Your task to perform on an android device: create a new album in the google photos Image 0: 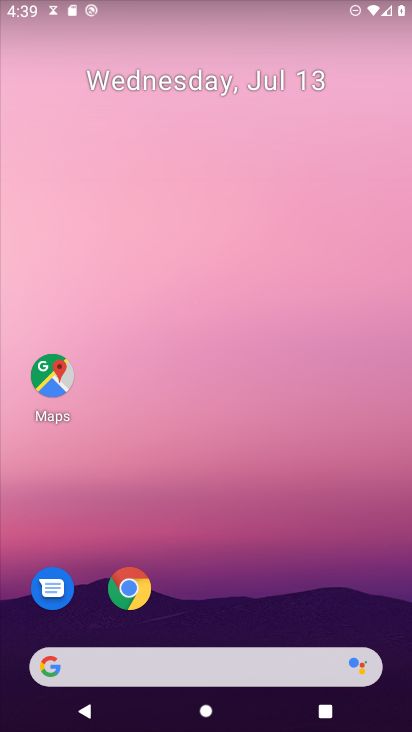
Step 0: drag from (313, 661) to (252, 182)
Your task to perform on an android device: create a new album in the google photos Image 1: 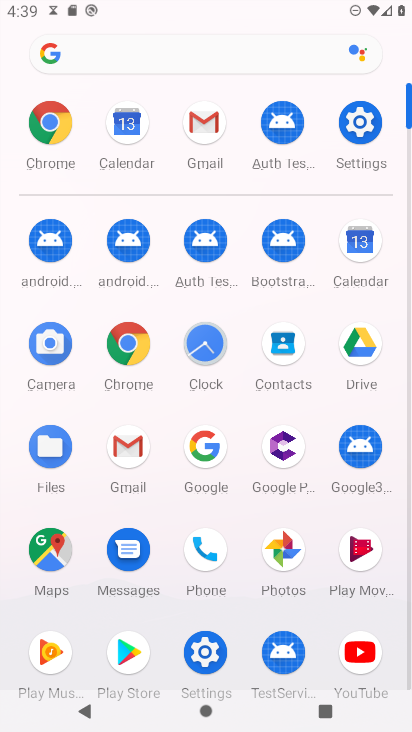
Step 1: click (290, 549)
Your task to perform on an android device: create a new album in the google photos Image 2: 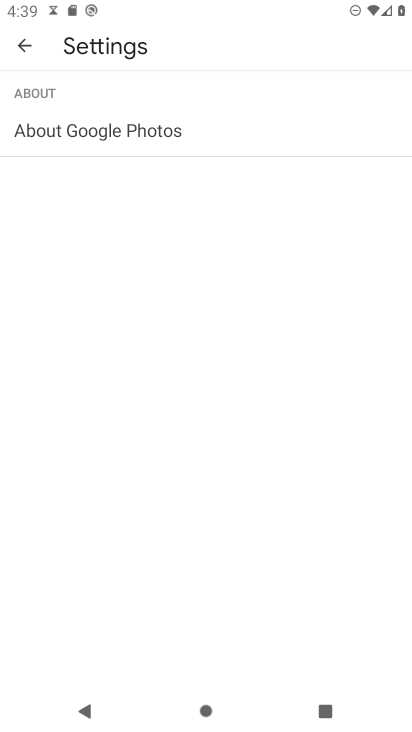
Step 2: click (85, 138)
Your task to perform on an android device: create a new album in the google photos Image 3: 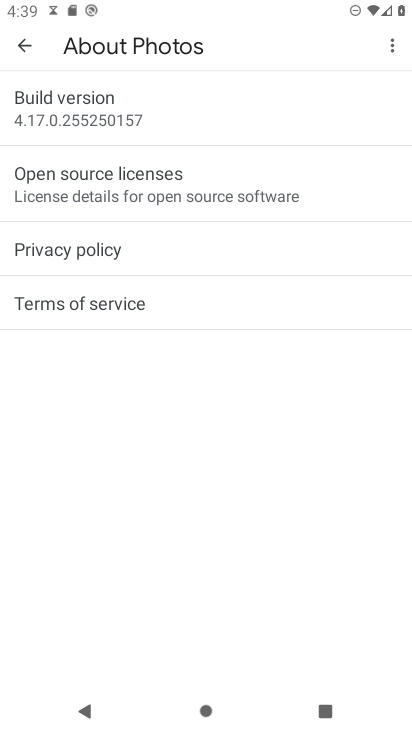
Step 3: click (19, 48)
Your task to perform on an android device: create a new album in the google photos Image 4: 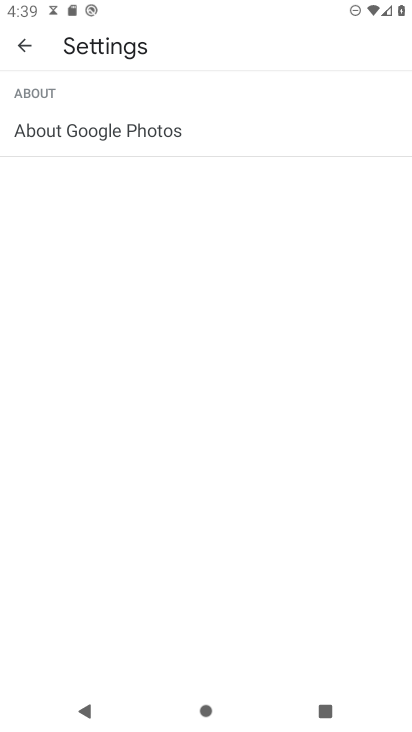
Step 4: click (23, 42)
Your task to perform on an android device: create a new album in the google photos Image 5: 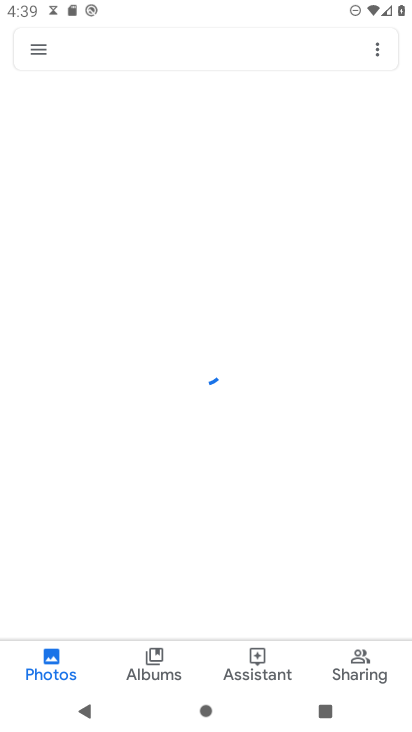
Step 5: click (150, 654)
Your task to perform on an android device: create a new album in the google photos Image 6: 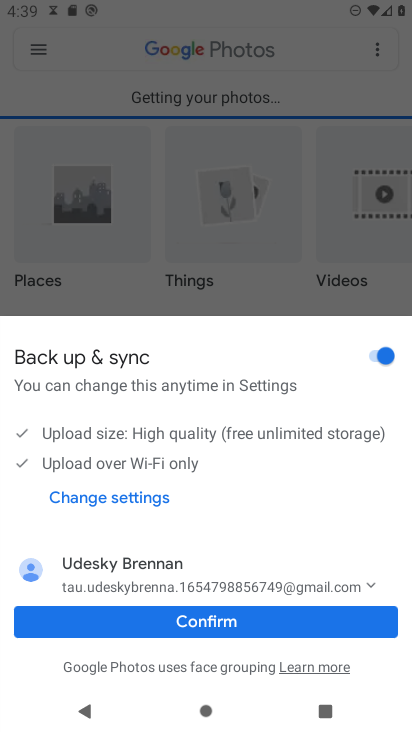
Step 6: click (198, 616)
Your task to perform on an android device: create a new album in the google photos Image 7: 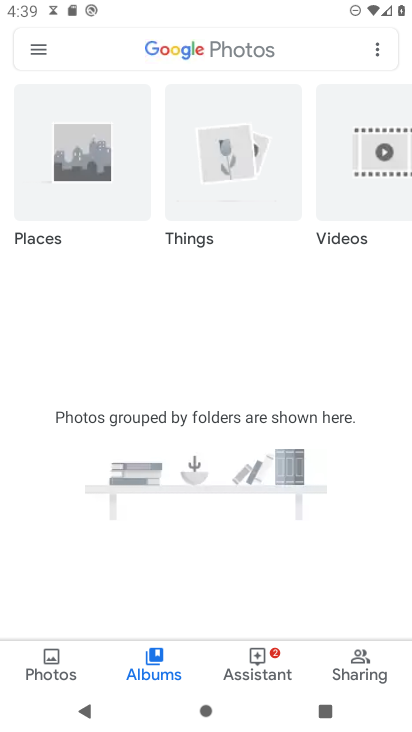
Step 7: click (373, 41)
Your task to perform on an android device: create a new album in the google photos Image 8: 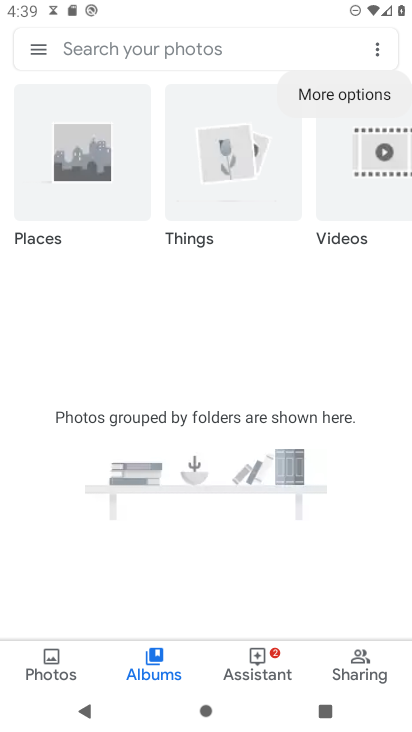
Step 8: click (379, 41)
Your task to perform on an android device: create a new album in the google photos Image 9: 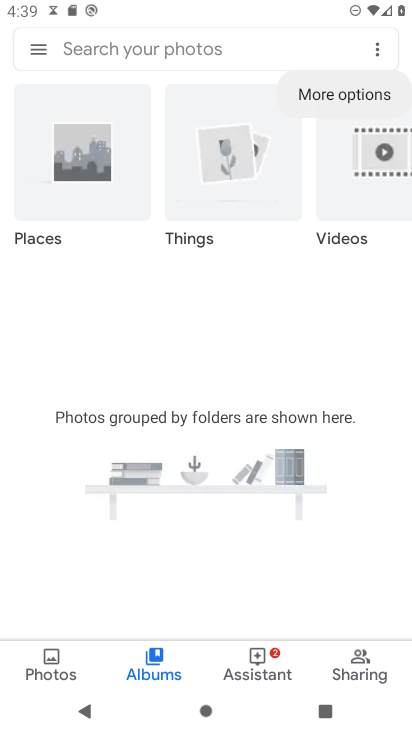
Step 9: drag from (378, 45) to (290, 105)
Your task to perform on an android device: create a new album in the google photos Image 10: 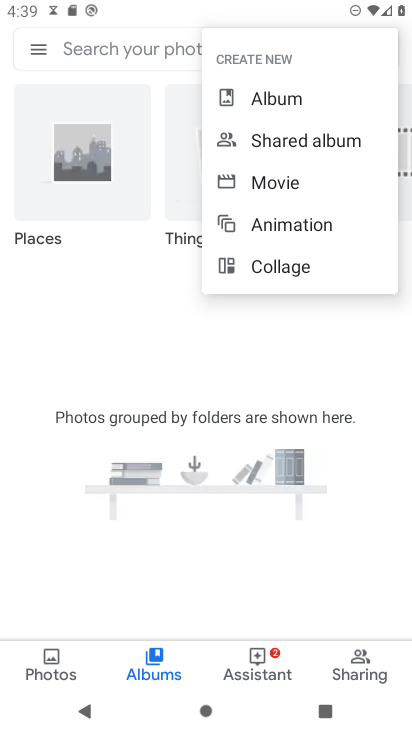
Step 10: click (290, 105)
Your task to perform on an android device: create a new album in the google photos Image 11: 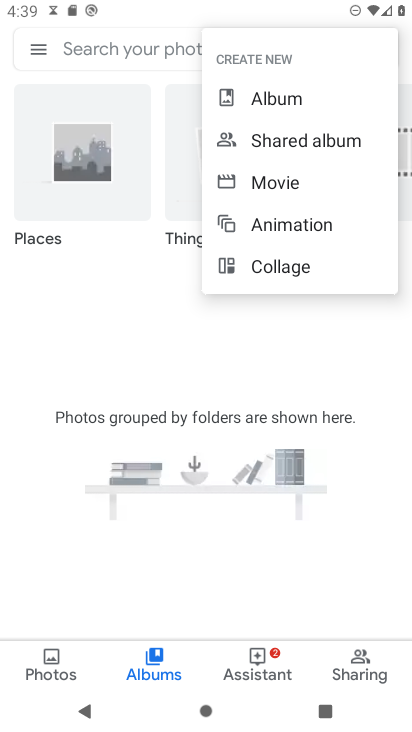
Step 11: click (290, 105)
Your task to perform on an android device: create a new album in the google photos Image 12: 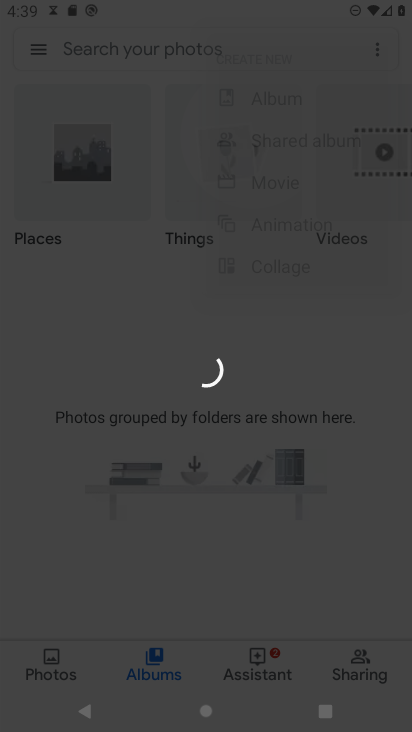
Step 12: click (284, 99)
Your task to perform on an android device: create a new album in the google photos Image 13: 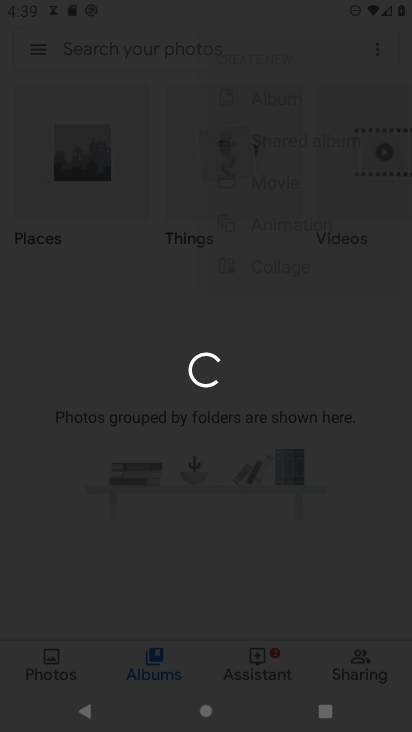
Step 13: click (284, 99)
Your task to perform on an android device: create a new album in the google photos Image 14: 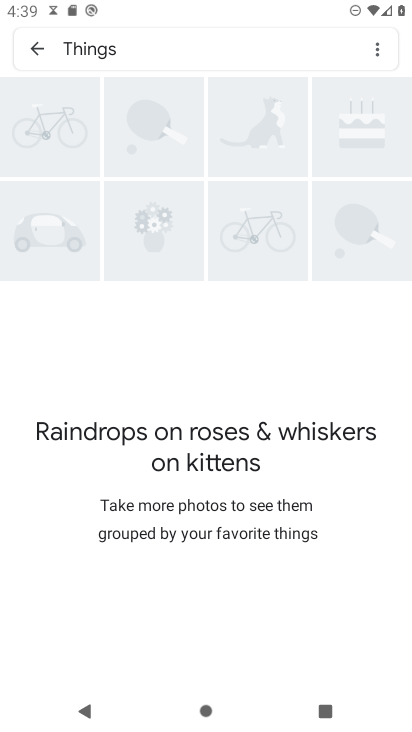
Step 14: click (26, 43)
Your task to perform on an android device: create a new album in the google photos Image 15: 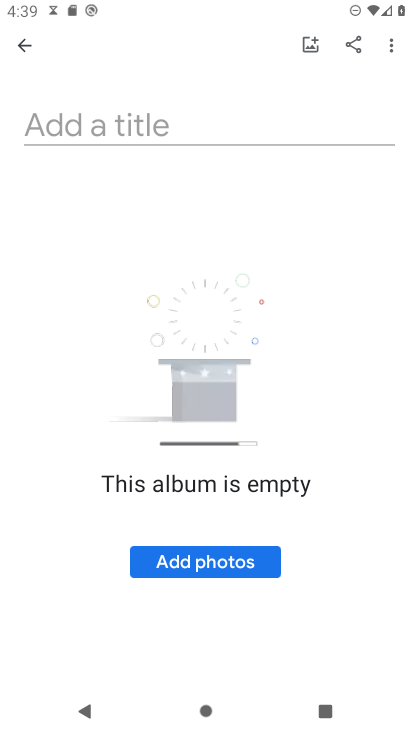
Step 15: click (91, 124)
Your task to perform on an android device: create a new album in the google photos Image 16: 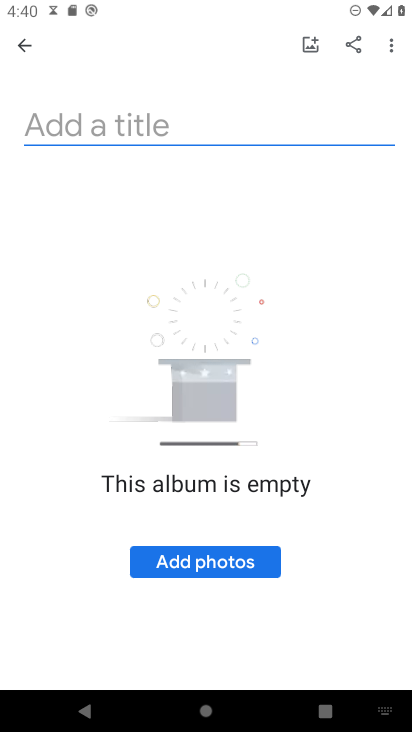
Step 16: type "bsdbvjhsb"
Your task to perform on an android device: create a new album in the google photos Image 17: 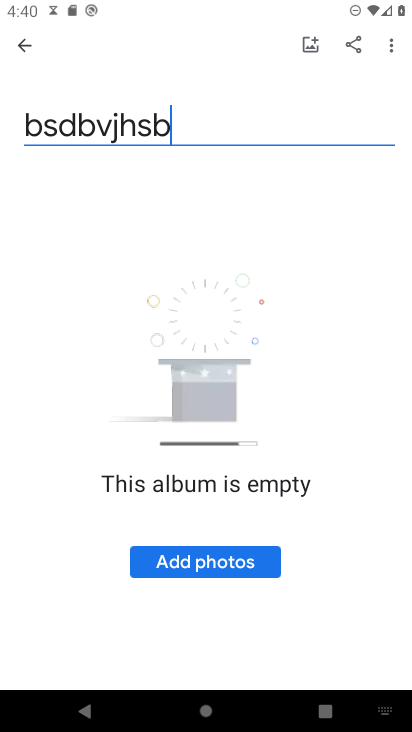
Step 17: click (193, 560)
Your task to perform on an android device: create a new album in the google photos Image 18: 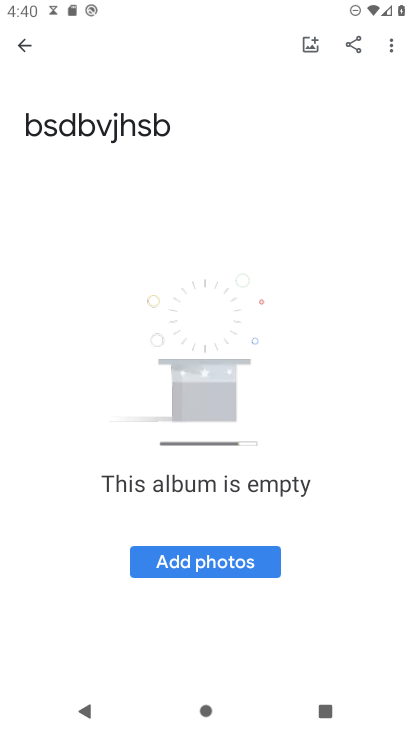
Step 18: click (193, 560)
Your task to perform on an android device: create a new album in the google photos Image 19: 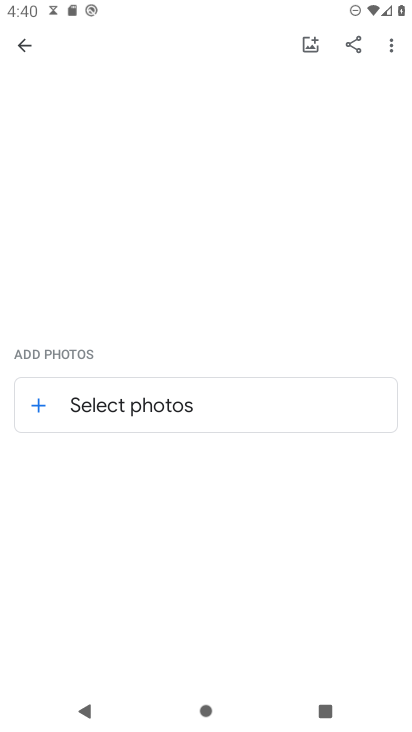
Step 19: click (133, 410)
Your task to perform on an android device: create a new album in the google photos Image 20: 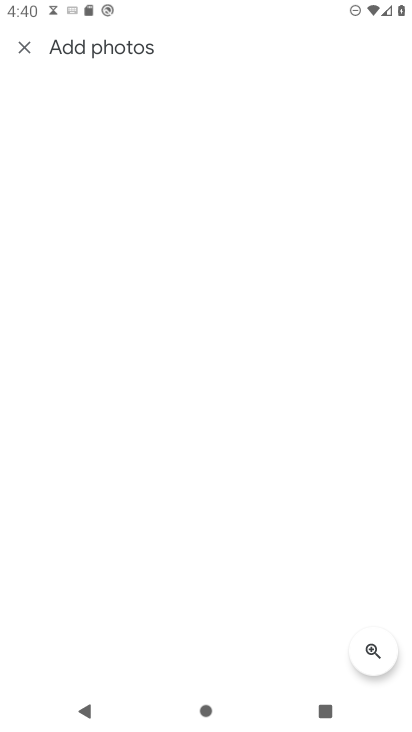
Step 20: drag from (153, 489) to (164, 106)
Your task to perform on an android device: create a new album in the google photos Image 21: 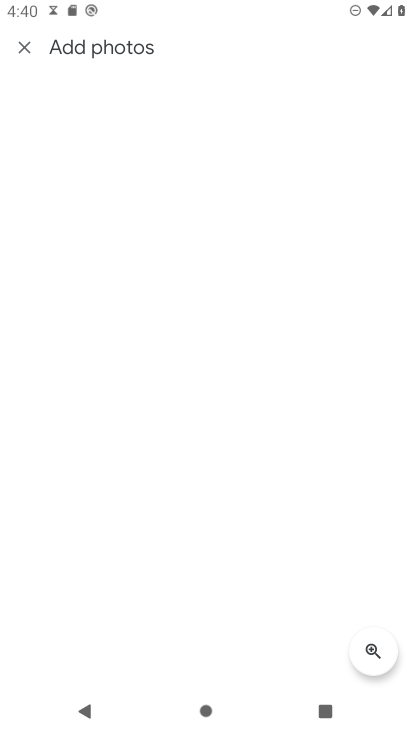
Step 21: drag from (213, 317) to (202, 150)
Your task to perform on an android device: create a new album in the google photos Image 22: 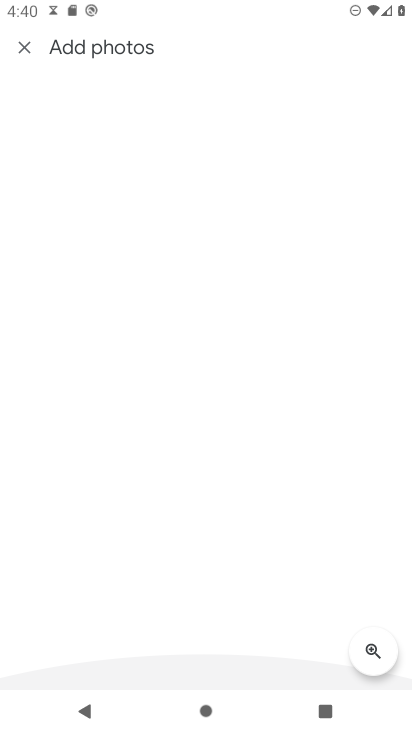
Step 22: drag from (163, 398) to (165, 145)
Your task to perform on an android device: create a new album in the google photos Image 23: 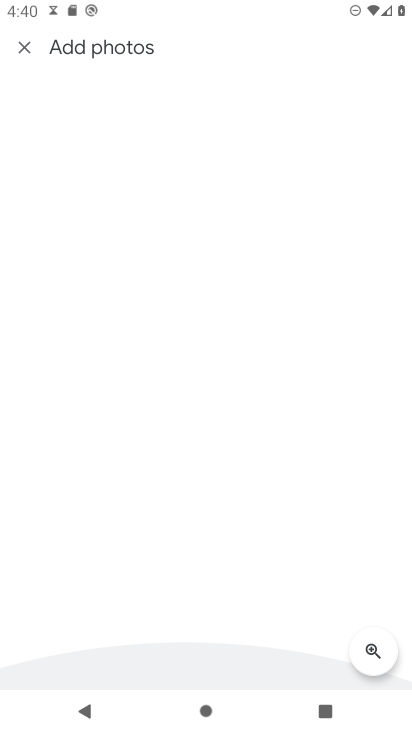
Step 23: drag from (168, 472) to (190, 125)
Your task to perform on an android device: create a new album in the google photos Image 24: 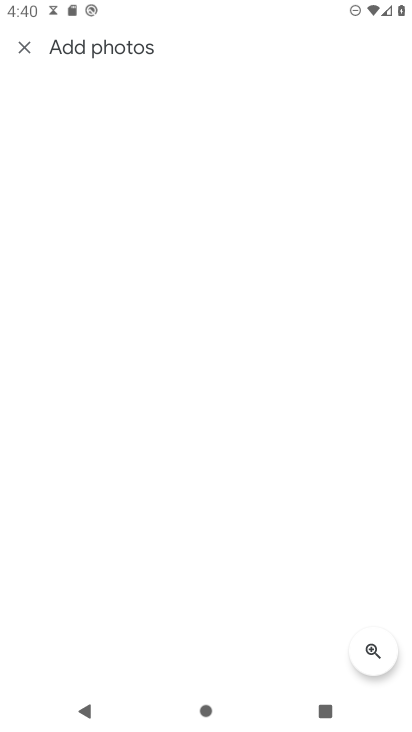
Step 24: drag from (215, 345) to (211, 50)
Your task to perform on an android device: create a new album in the google photos Image 25: 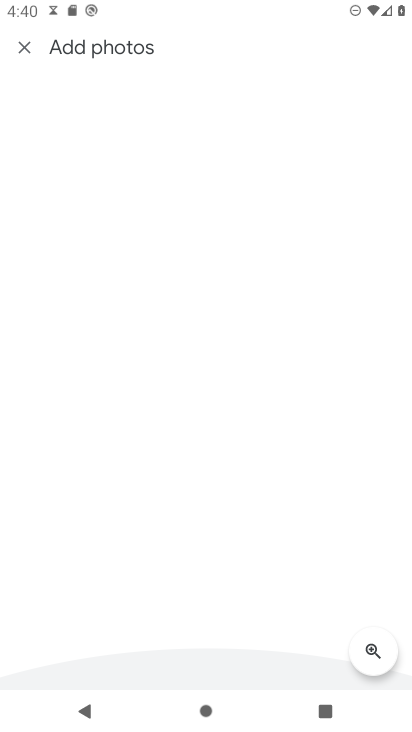
Step 25: drag from (218, 348) to (139, 83)
Your task to perform on an android device: create a new album in the google photos Image 26: 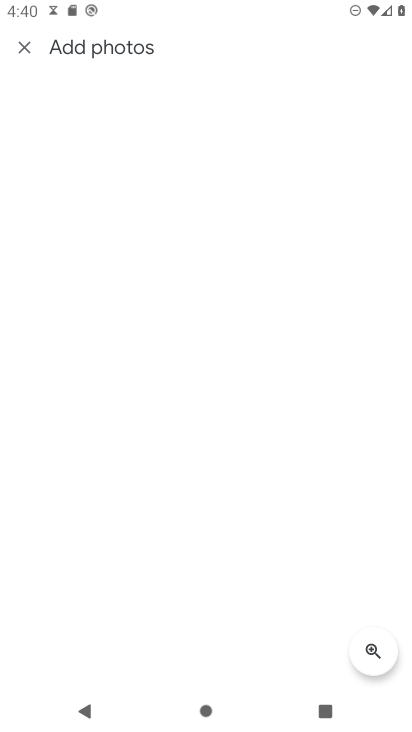
Step 26: drag from (131, 360) to (243, 0)
Your task to perform on an android device: create a new album in the google photos Image 27: 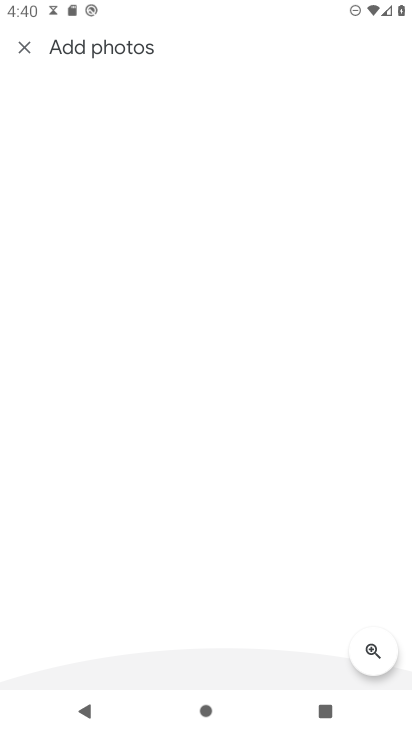
Step 27: drag from (216, 416) to (212, 118)
Your task to perform on an android device: create a new album in the google photos Image 28: 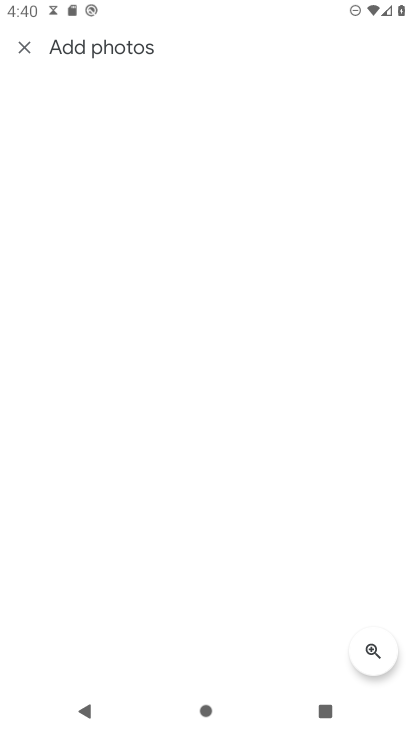
Step 28: click (161, 327)
Your task to perform on an android device: create a new album in the google photos Image 29: 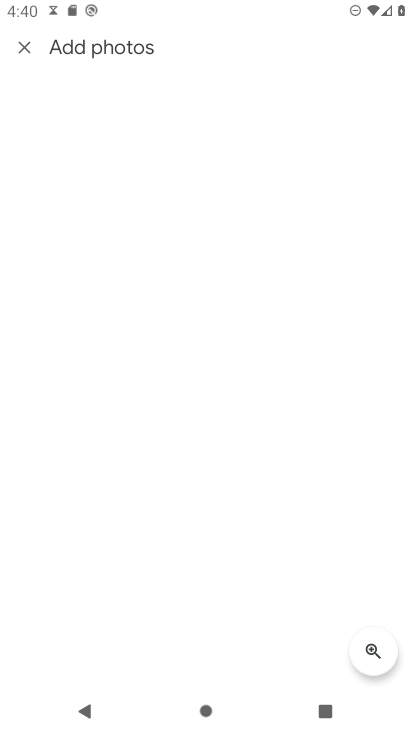
Step 29: task complete